Your task to perform on an android device: see creations saved in the google photos Image 0: 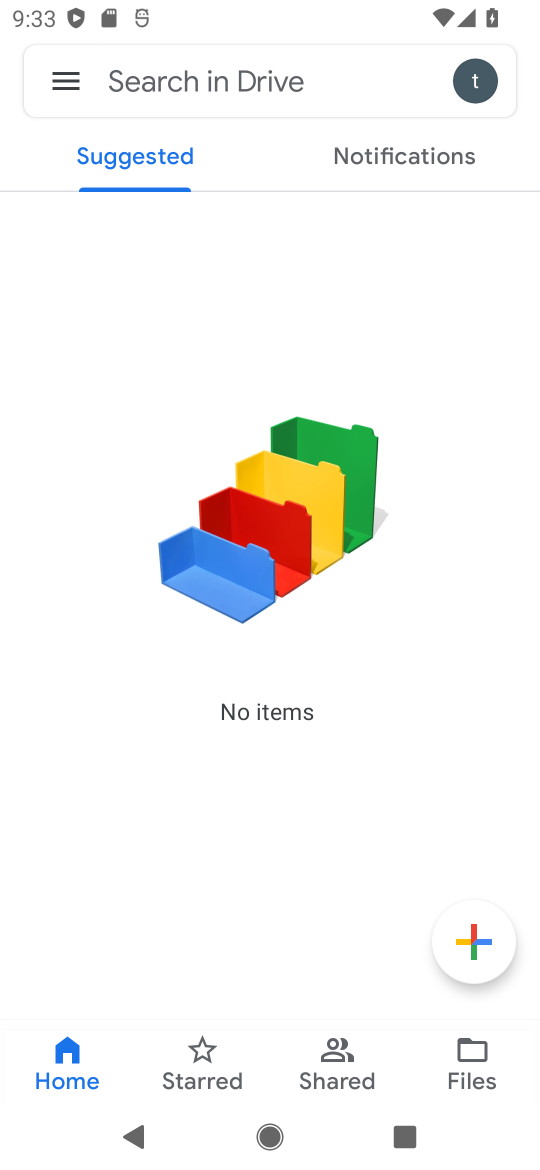
Step 0: press home button
Your task to perform on an android device: see creations saved in the google photos Image 1: 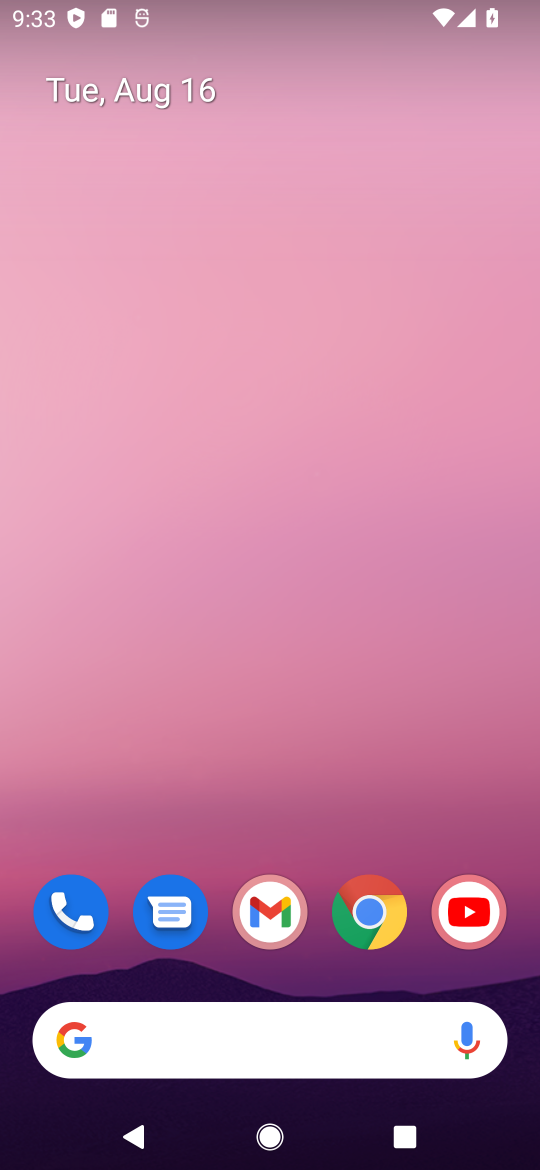
Step 1: drag from (325, 850) to (289, 200)
Your task to perform on an android device: see creations saved in the google photos Image 2: 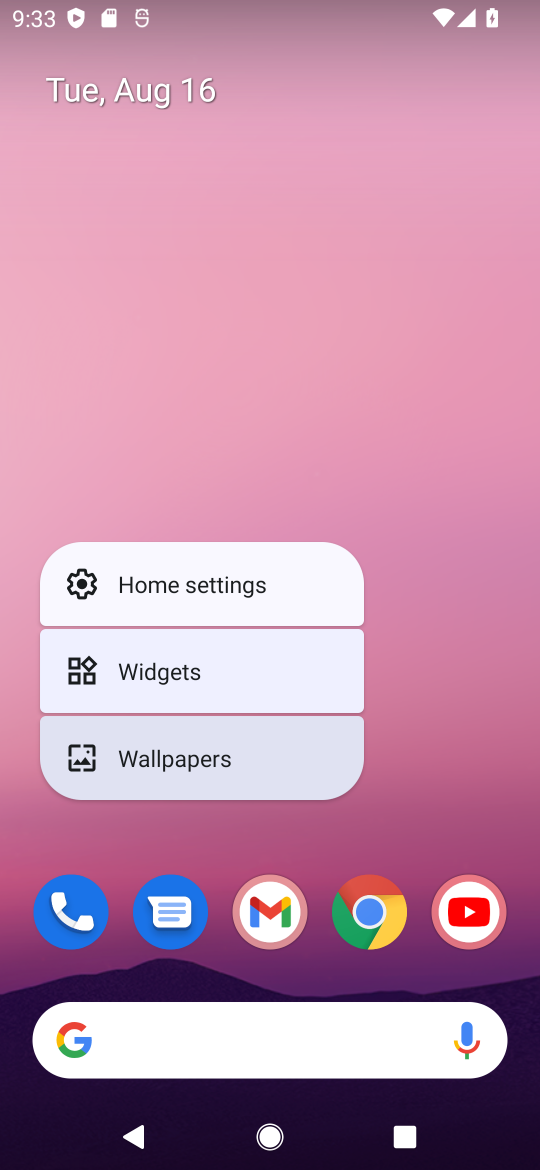
Step 2: click (472, 638)
Your task to perform on an android device: see creations saved in the google photos Image 3: 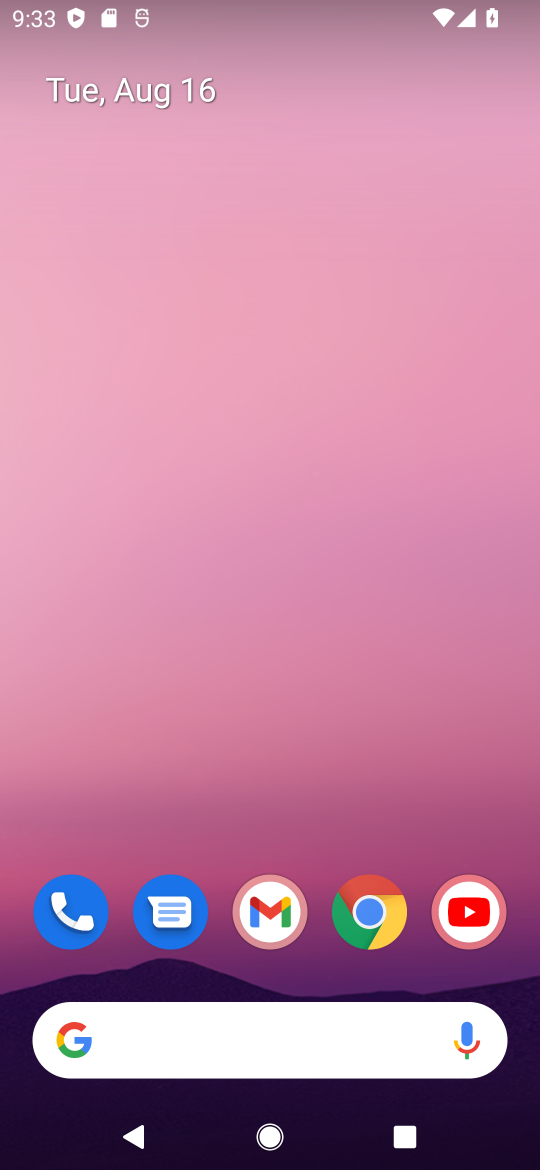
Step 3: drag from (332, 866) to (78, 112)
Your task to perform on an android device: see creations saved in the google photos Image 4: 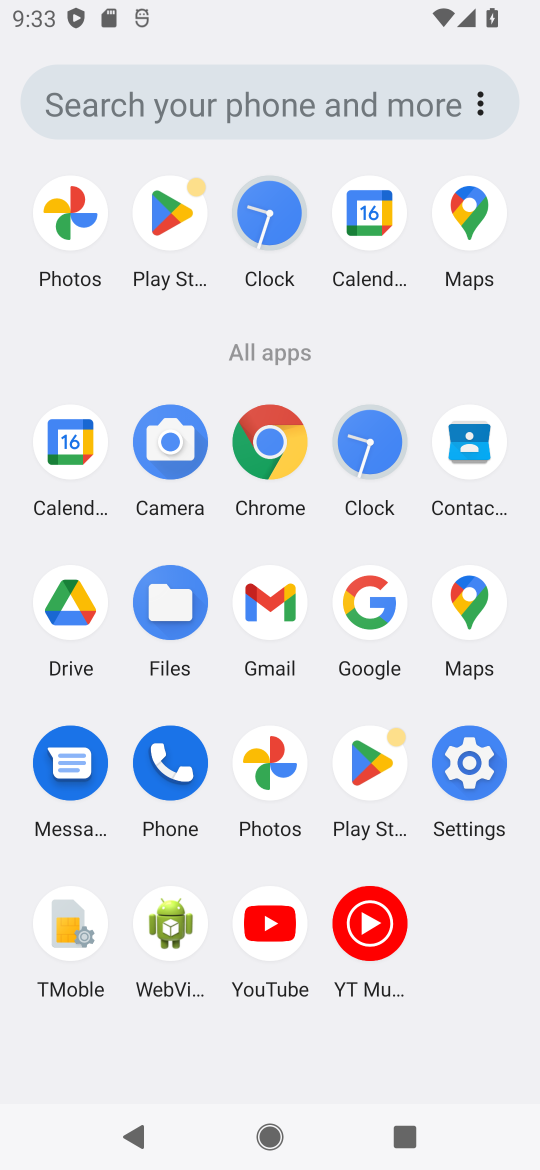
Step 4: click (290, 776)
Your task to perform on an android device: see creations saved in the google photos Image 5: 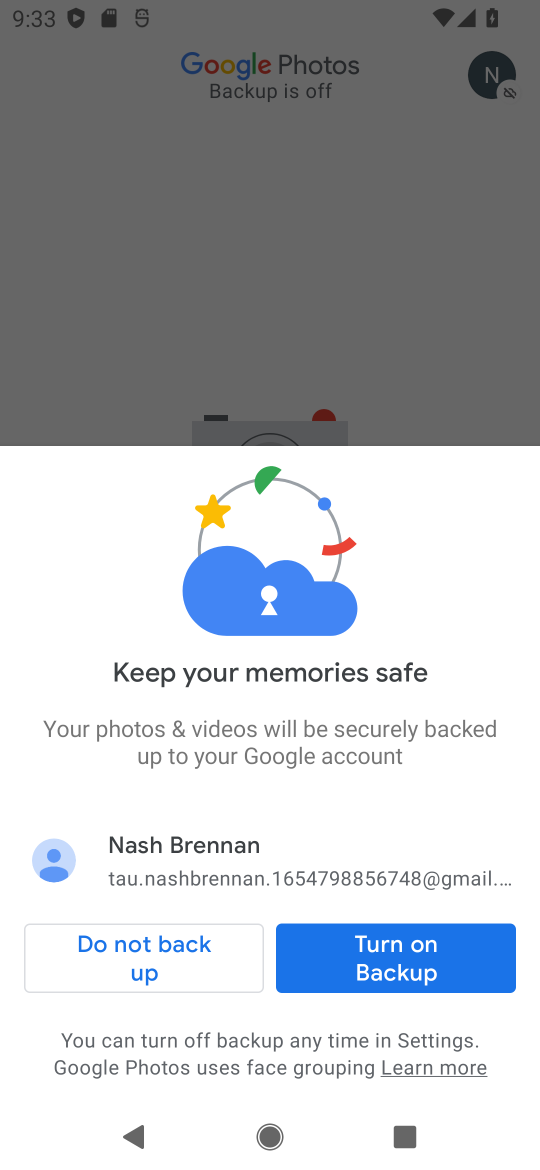
Step 5: click (230, 167)
Your task to perform on an android device: see creations saved in the google photos Image 6: 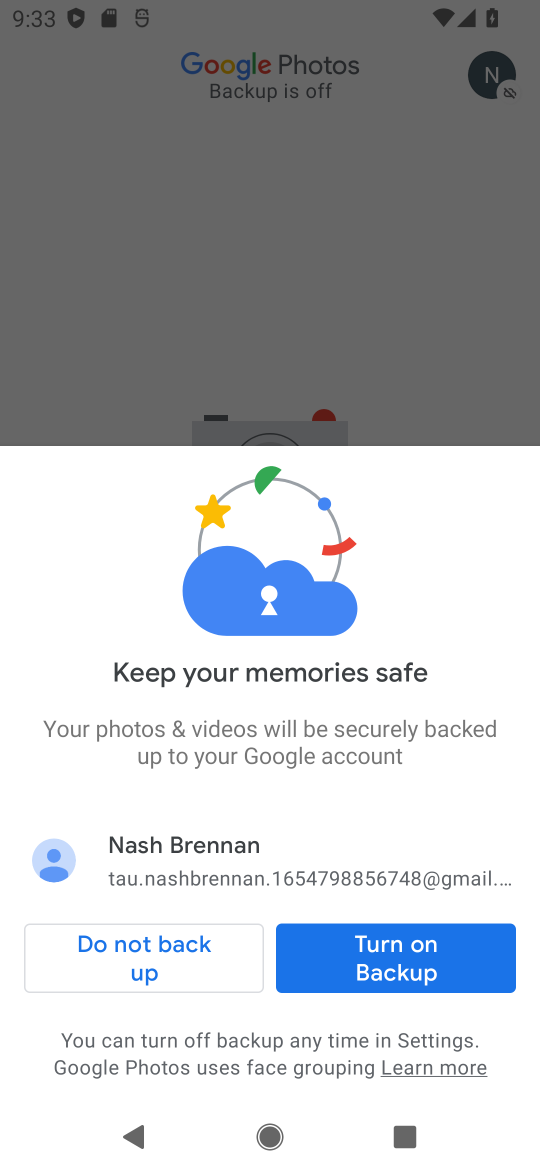
Step 6: click (370, 943)
Your task to perform on an android device: see creations saved in the google photos Image 7: 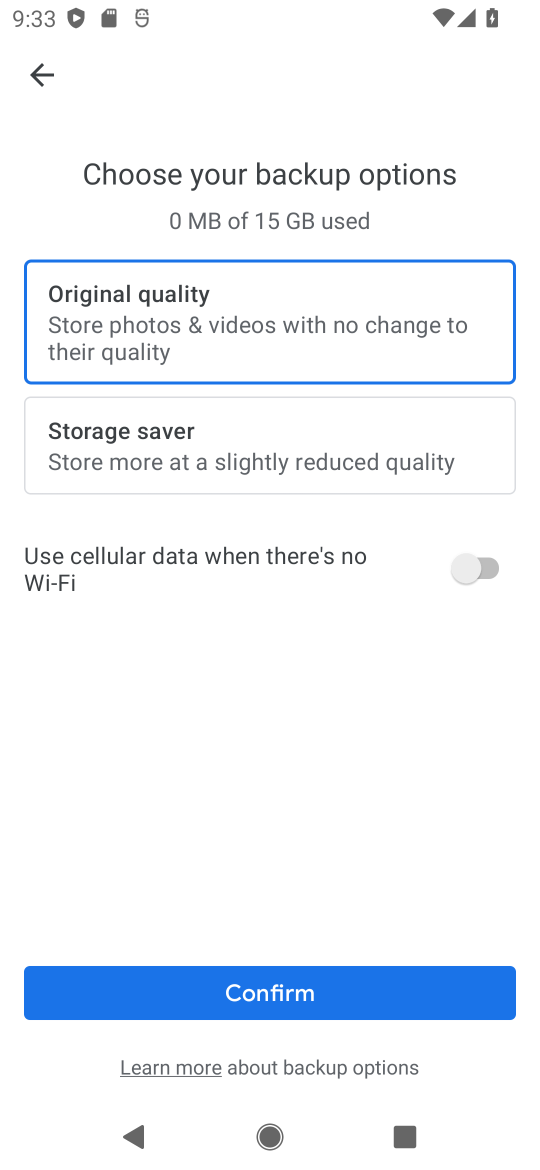
Step 7: click (284, 986)
Your task to perform on an android device: see creations saved in the google photos Image 8: 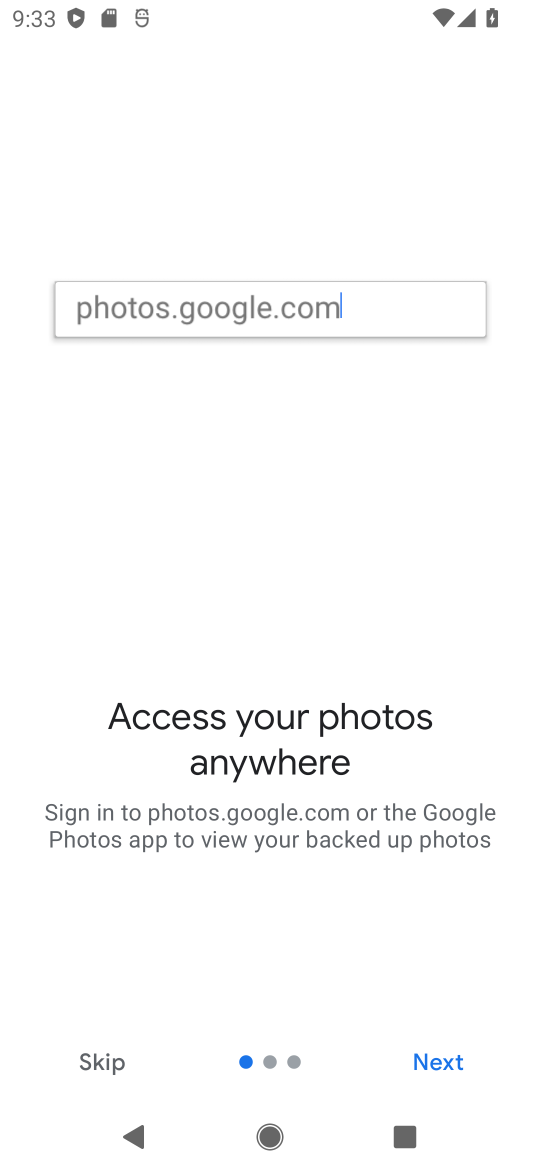
Step 8: click (450, 1064)
Your task to perform on an android device: see creations saved in the google photos Image 9: 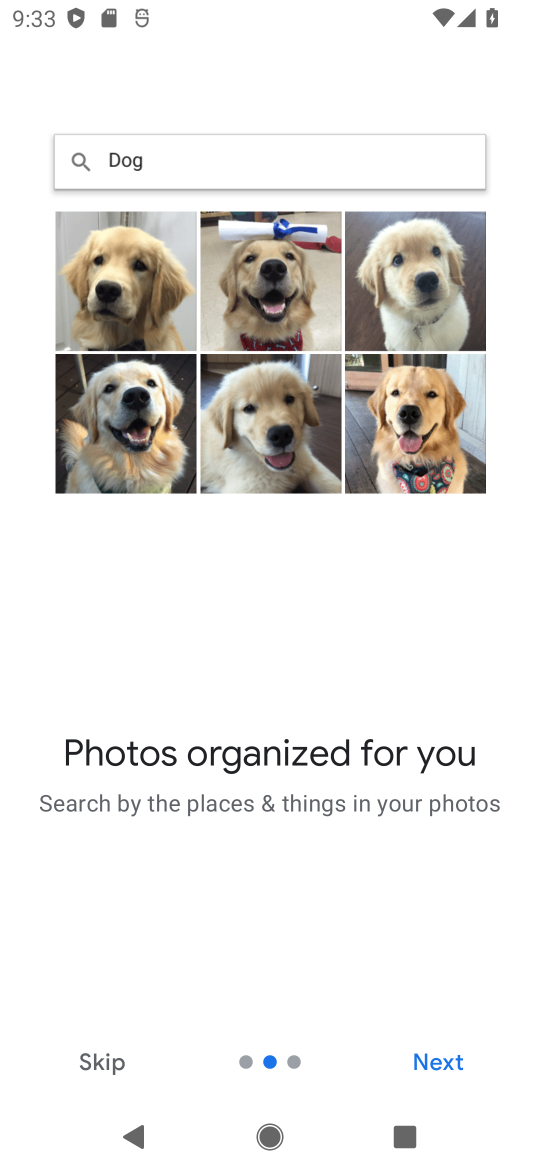
Step 9: click (450, 1064)
Your task to perform on an android device: see creations saved in the google photos Image 10: 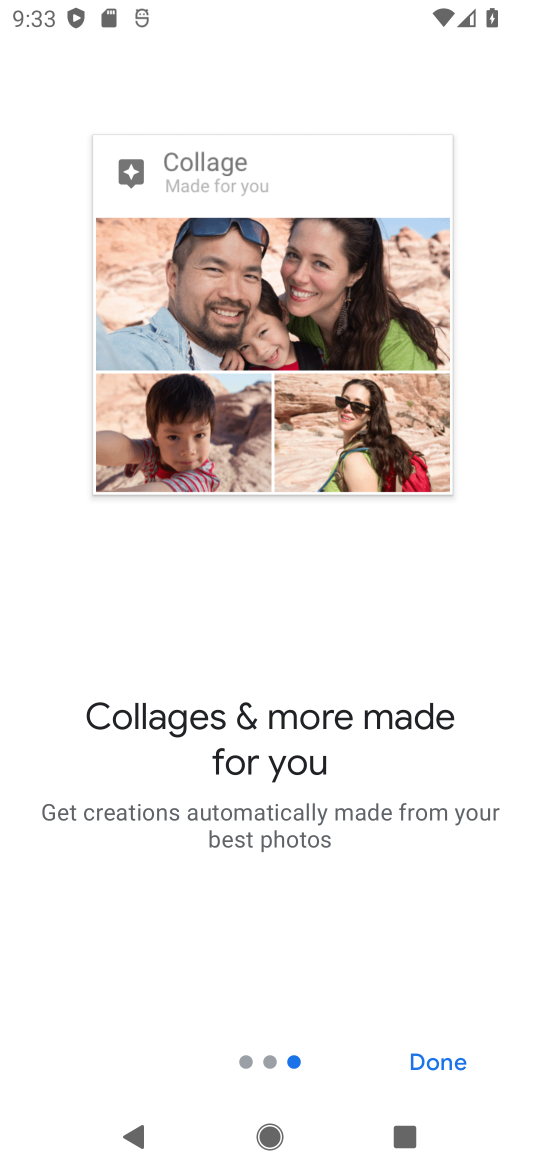
Step 10: click (450, 1064)
Your task to perform on an android device: see creations saved in the google photos Image 11: 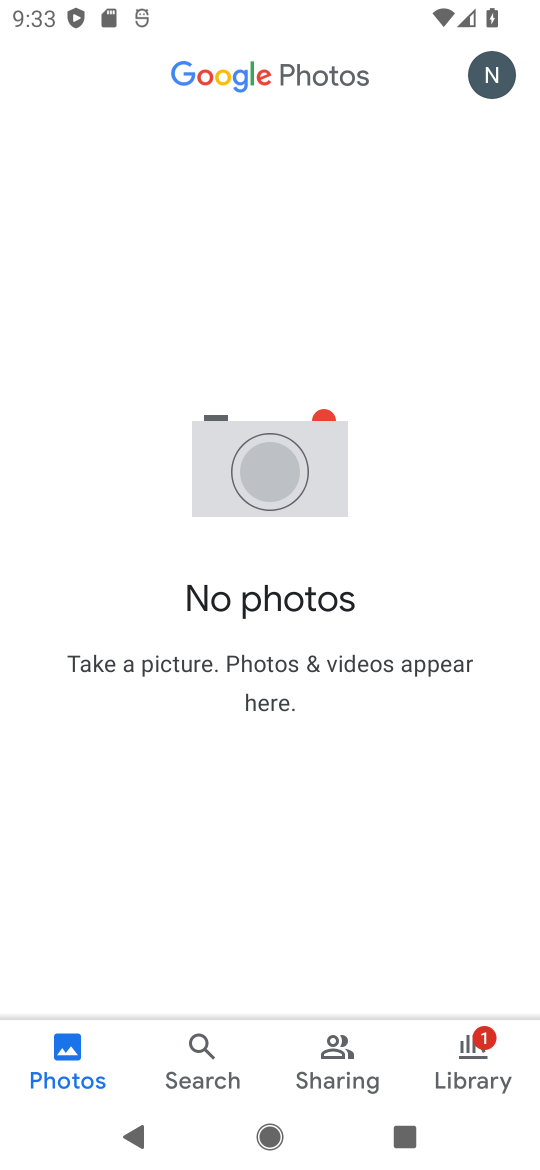
Step 11: task complete